Your task to perform on an android device: install app "WhatsApp Messenger" Image 0: 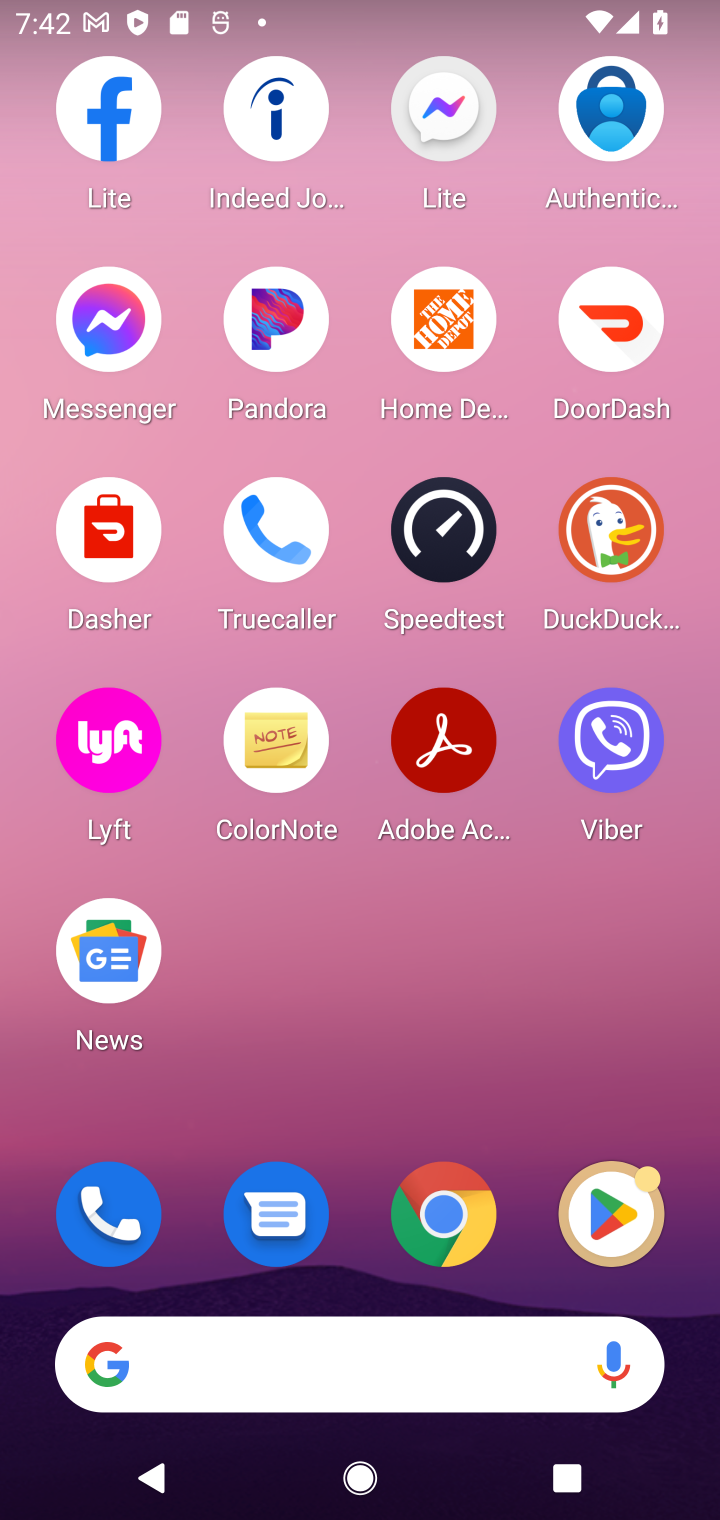
Step 0: click (633, 1213)
Your task to perform on an android device: install app "WhatsApp Messenger" Image 1: 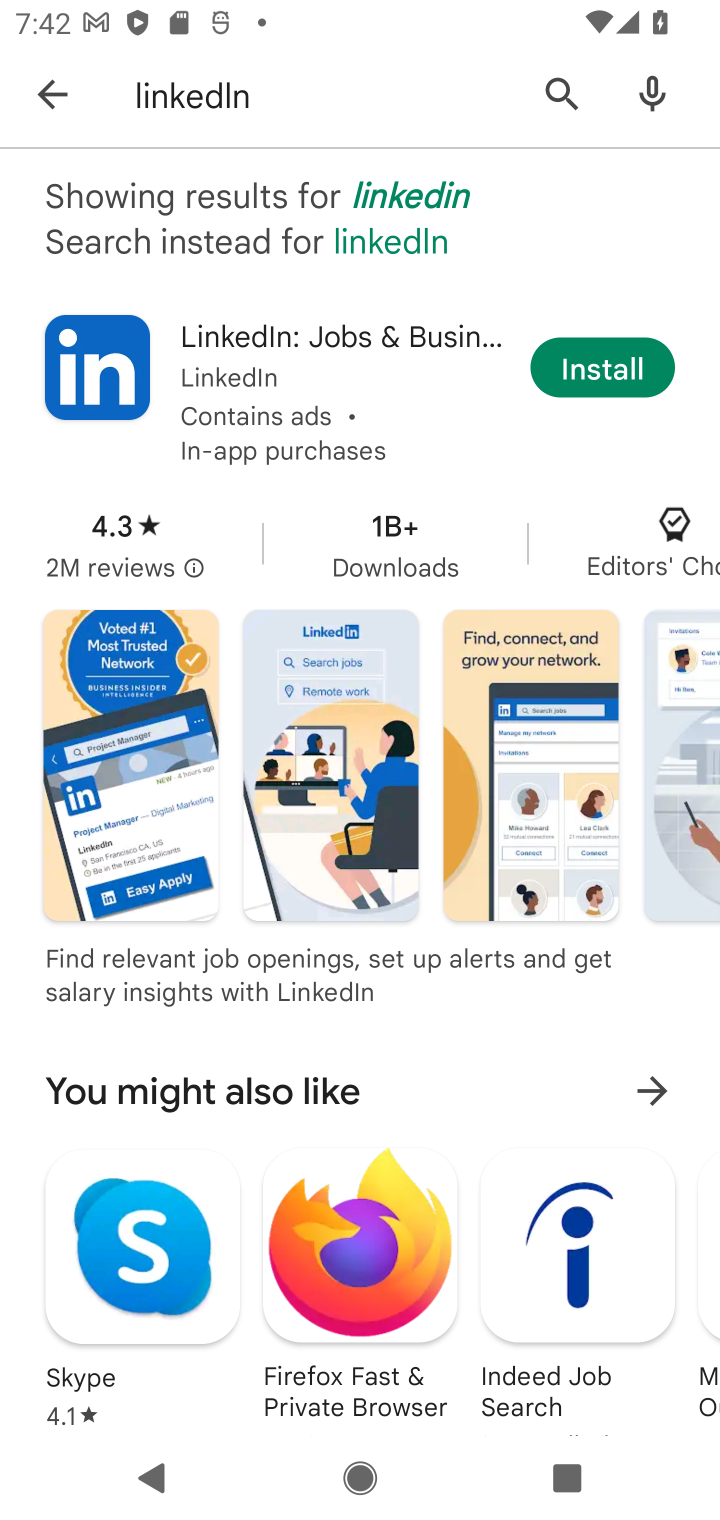
Step 1: click (549, 80)
Your task to perform on an android device: install app "WhatsApp Messenger" Image 2: 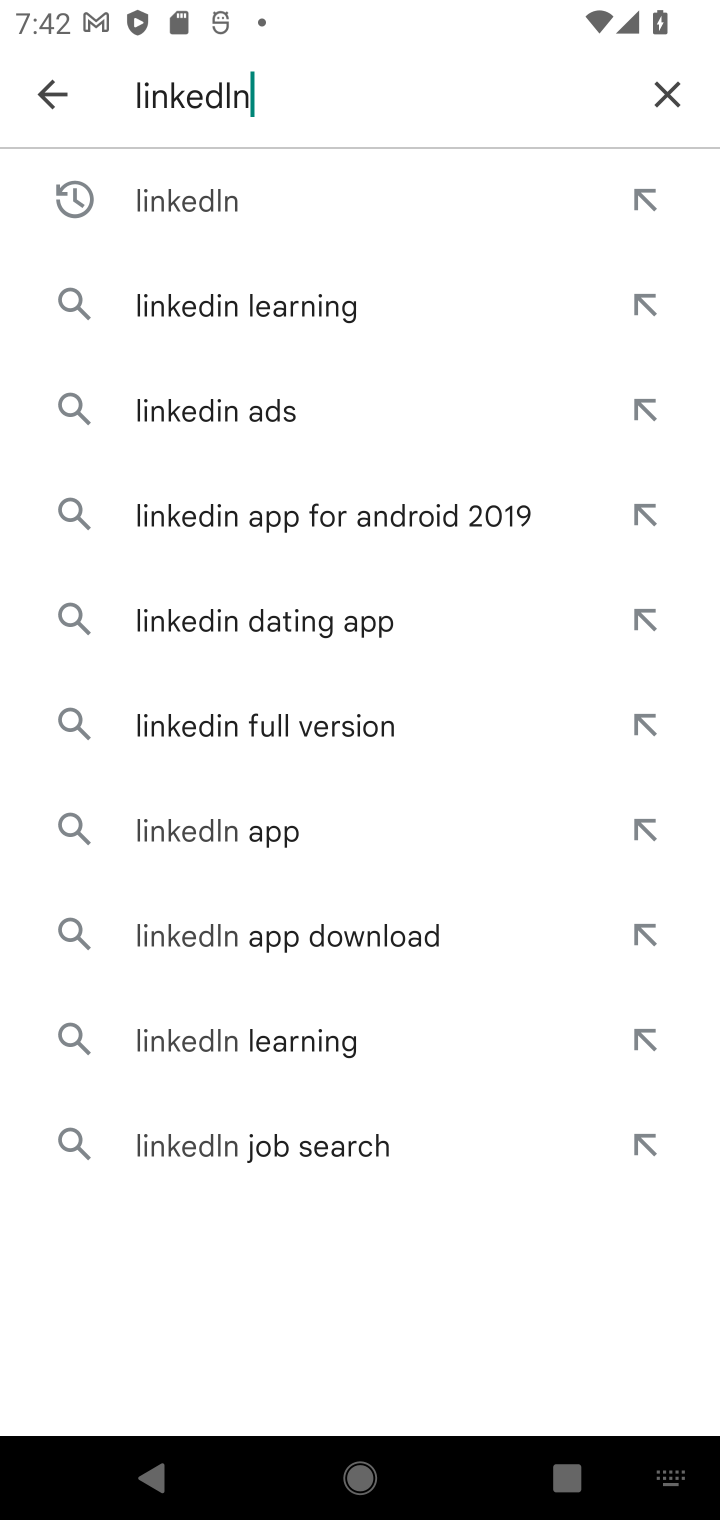
Step 2: click (662, 80)
Your task to perform on an android device: install app "WhatsApp Messenger" Image 3: 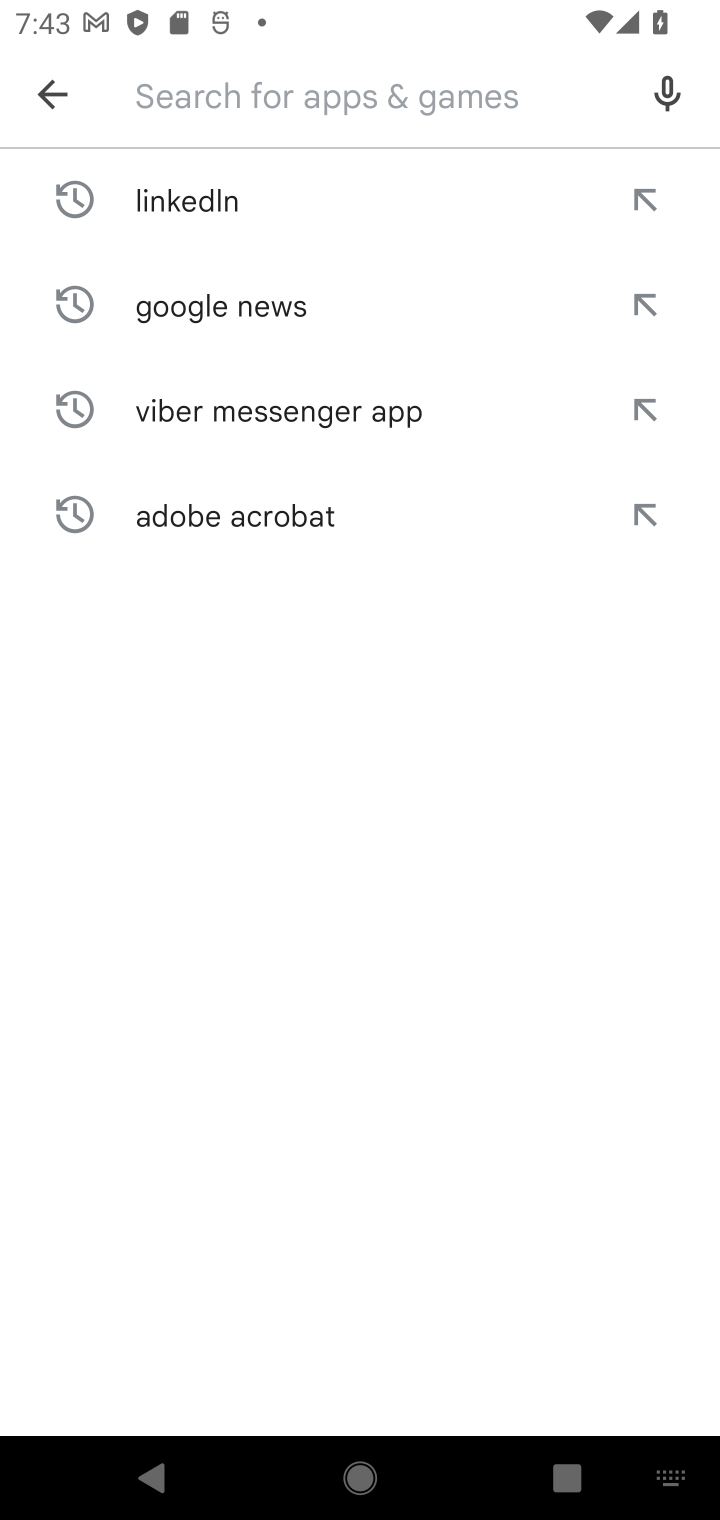
Step 3: click (189, 98)
Your task to perform on an android device: install app "WhatsApp Messenger" Image 4: 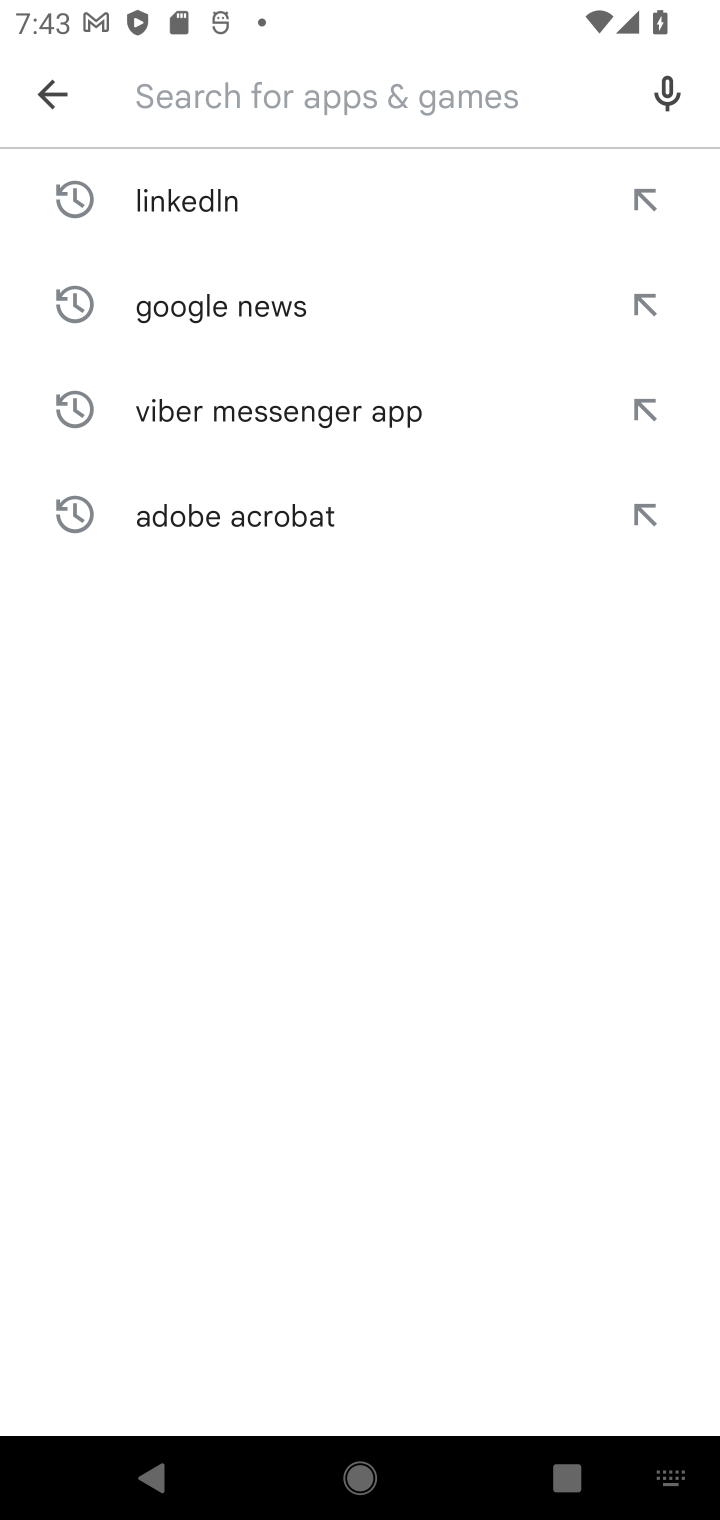
Step 4: type "WhatsApp Messenger"
Your task to perform on an android device: install app "WhatsApp Messenger" Image 5: 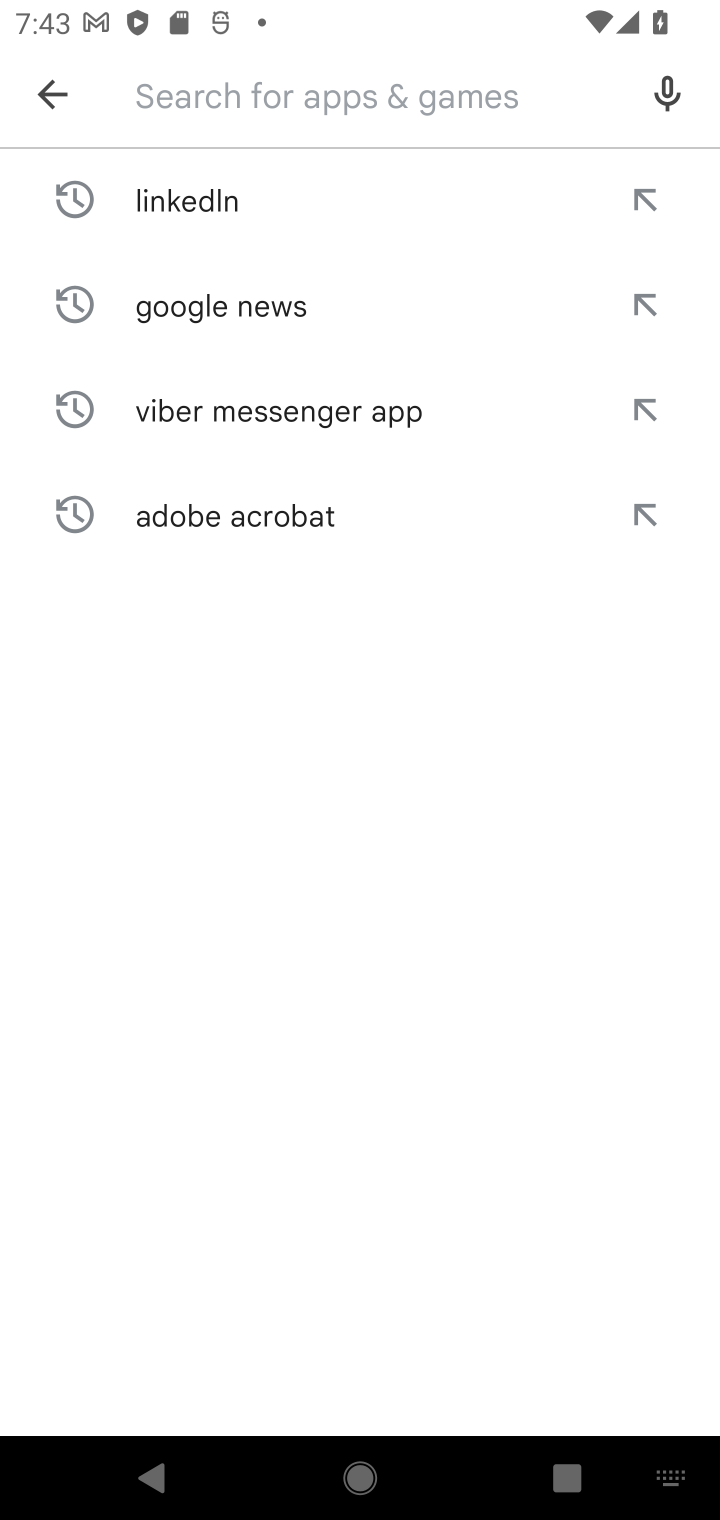
Step 5: click (455, 794)
Your task to perform on an android device: install app "WhatsApp Messenger" Image 6: 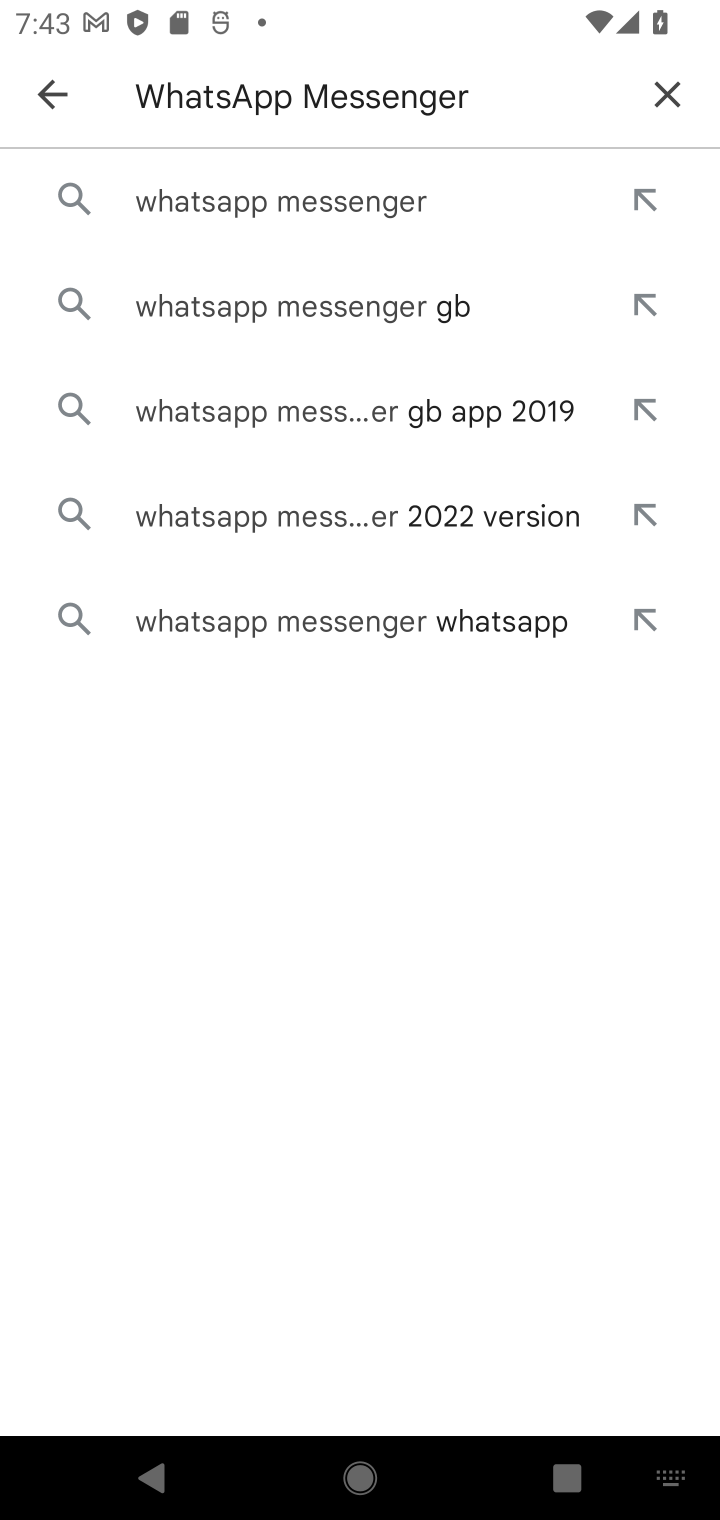
Step 6: click (382, 211)
Your task to perform on an android device: install app "WhatsApp Messenger" Image 7: 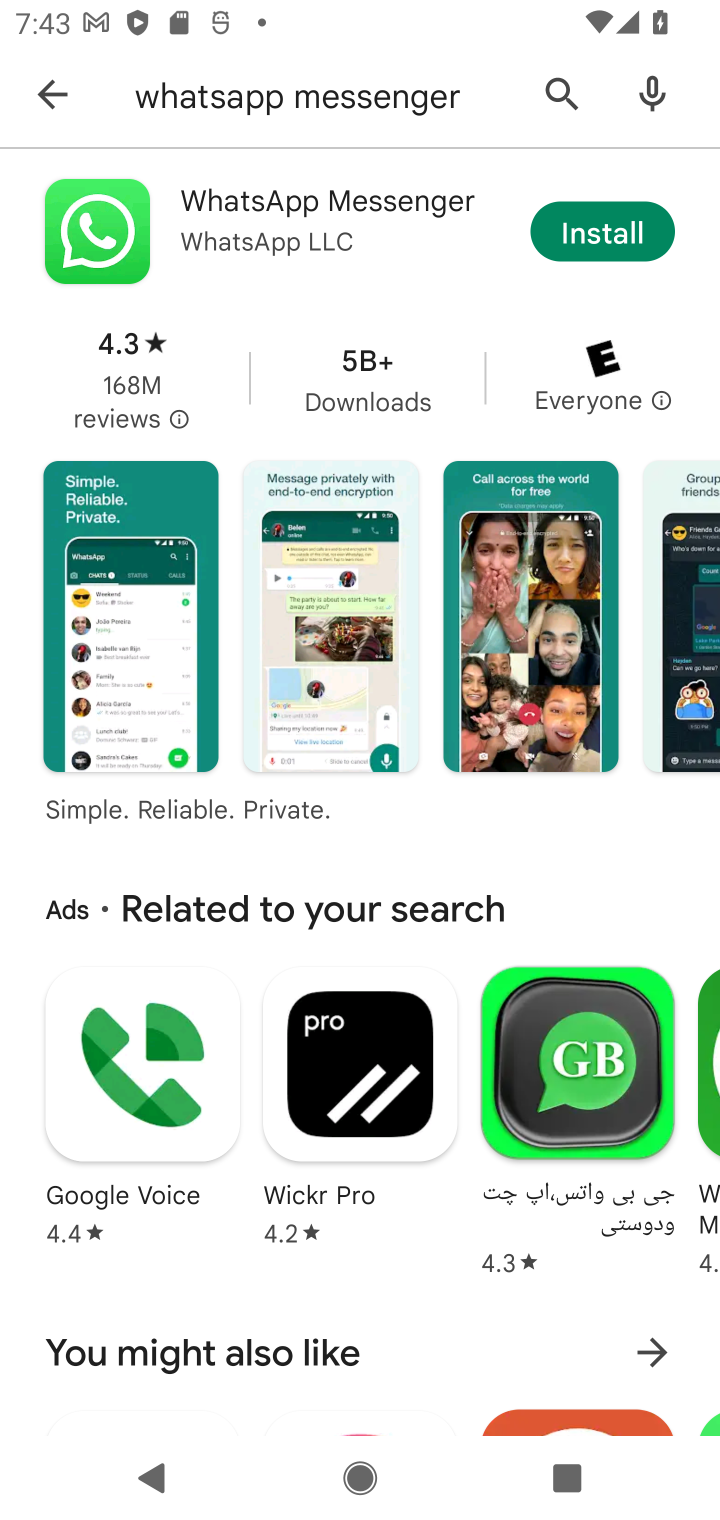
Step 7: click (592, 256)
Your task to perform on an android device: install app "WhatsApp Messenger" Image 8: 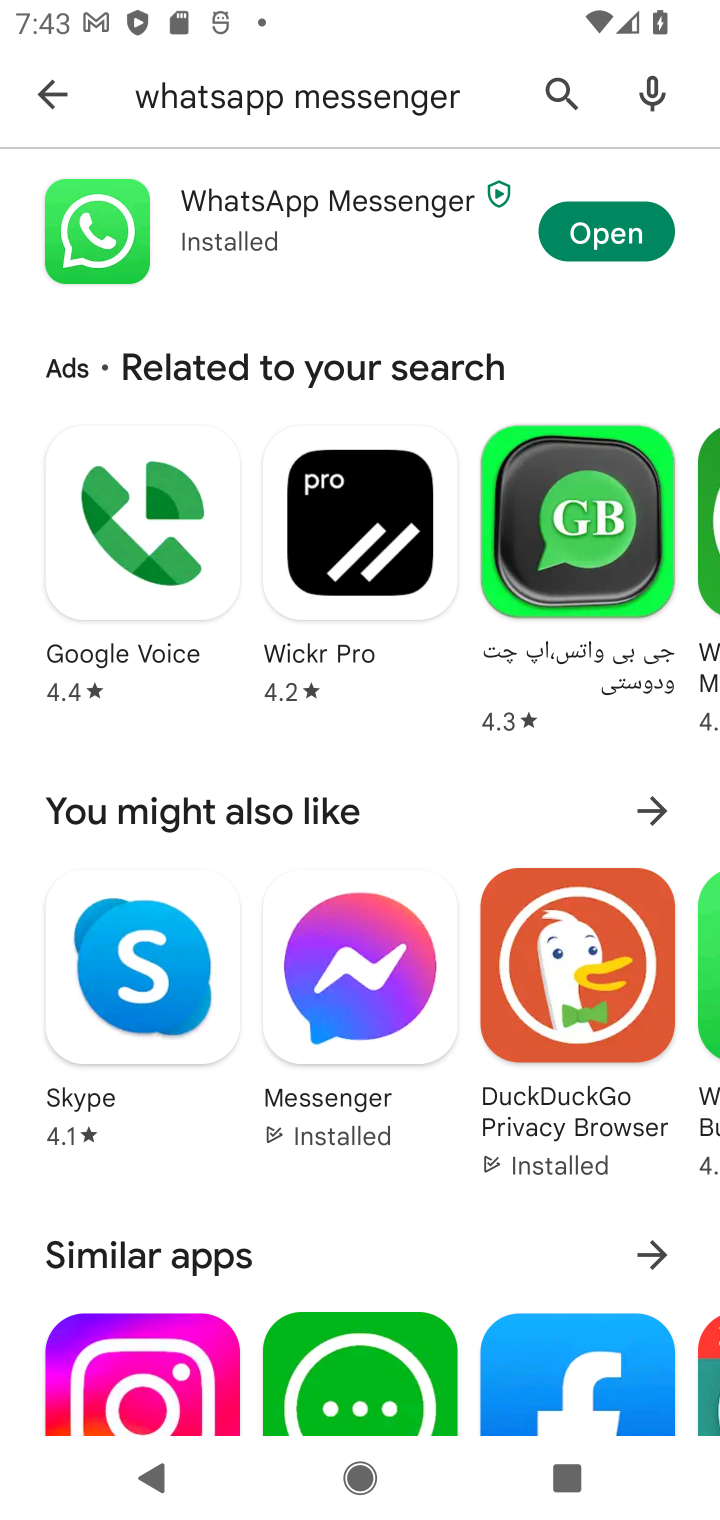
Step 8: task complete